Your task to perform on an android device: Check the weather Image 0: 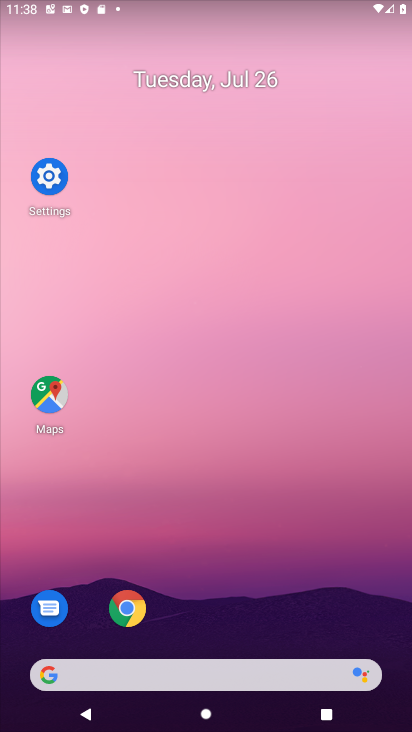
Step 0: drag from (274, 615) to (259, 160)
Your task to perform on an android device: Check the weather Image 1: 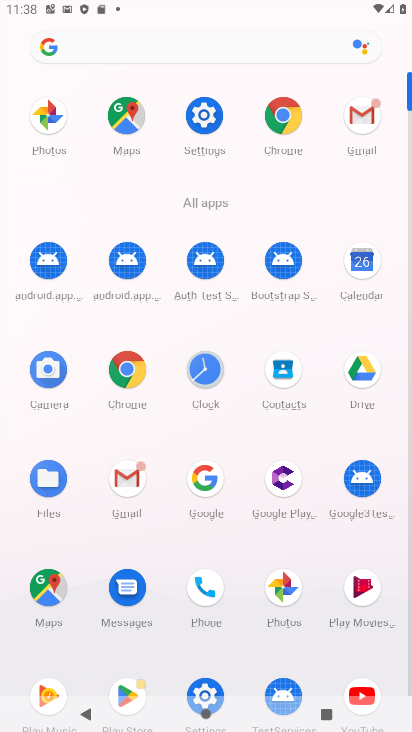
Step 1: drag from (204, 483) to (123, 215)
Your task to perform on an android device: Check the weather Image 2: 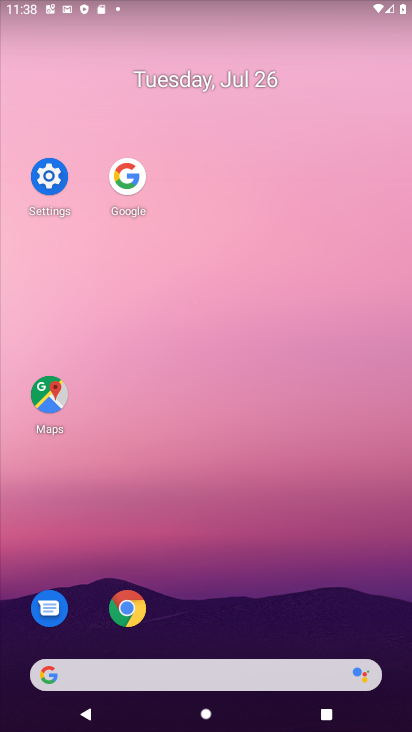
Step 2: click (127, 175)
Your task to perform on an android device: Check the weather Image 3: 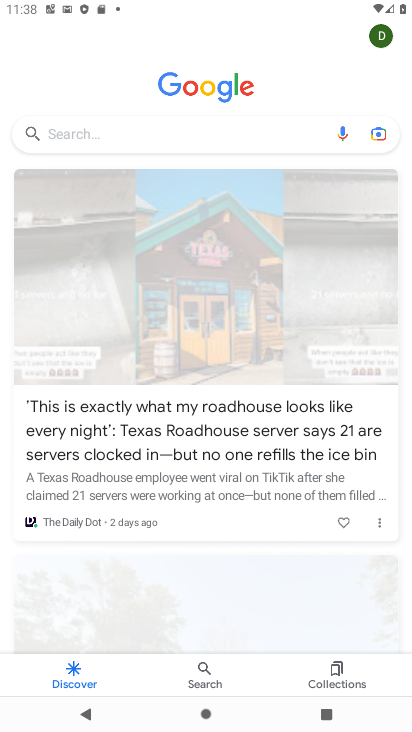
Step 3: click (165, 144)
Your task to perform on an android device: Check the weather Image 4: 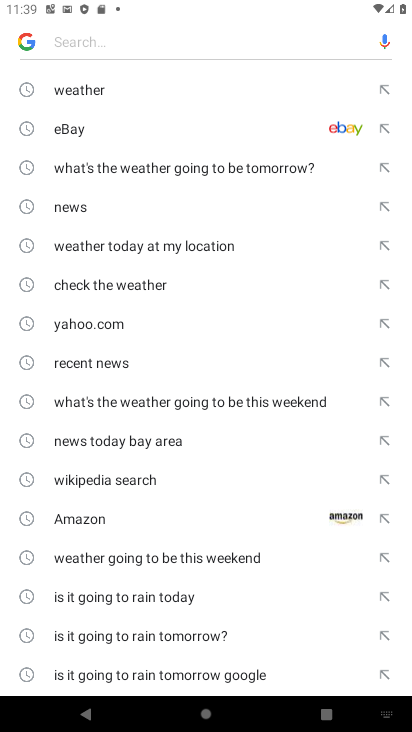
Step 4: click (97, 97)
Your task to perform on an android device: Check the weather Image 5: 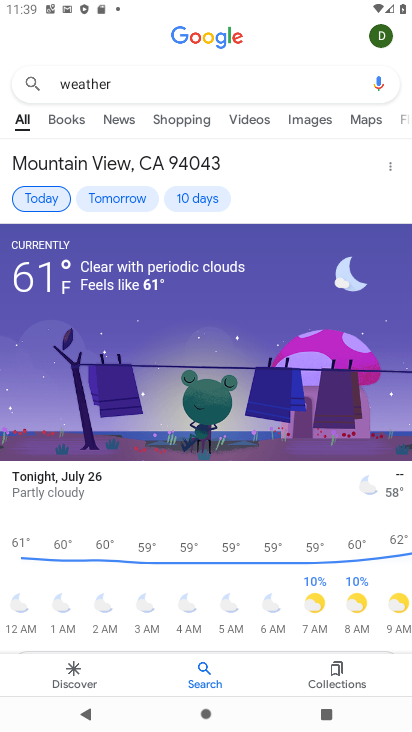
Step 5: task complete